Your task to perform on an android device: Go to ESPN.com Image 0: 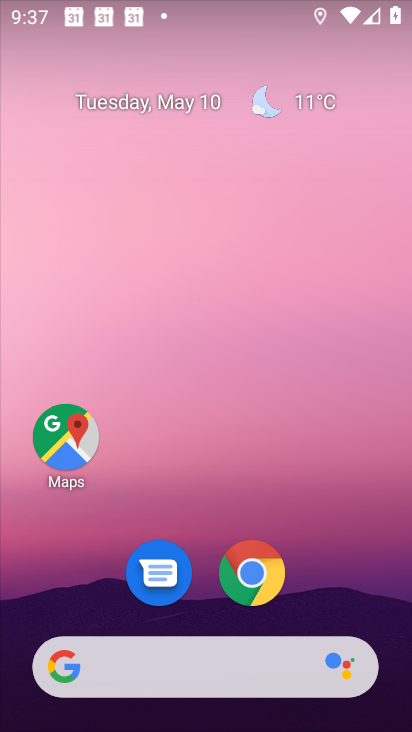
Step 0: click (251, 570)
Your task to perform on an android device: Go to ESPN.com Image 1: 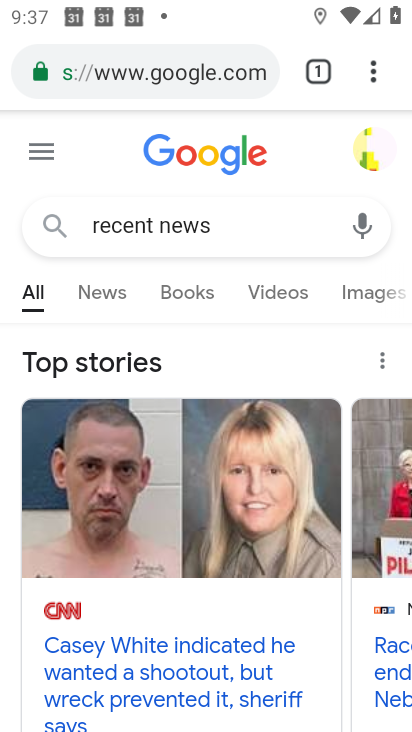
Step 1: click (196, 87)
Your task to perform on an android device: Go to ESPN.com Image 2: 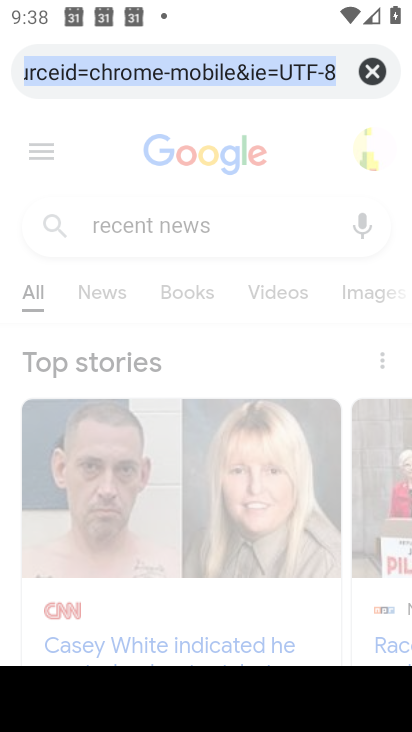
Step 2: type "ESPN.com"
Your task to perform on an android device: Go to ESPN.com Image 3: 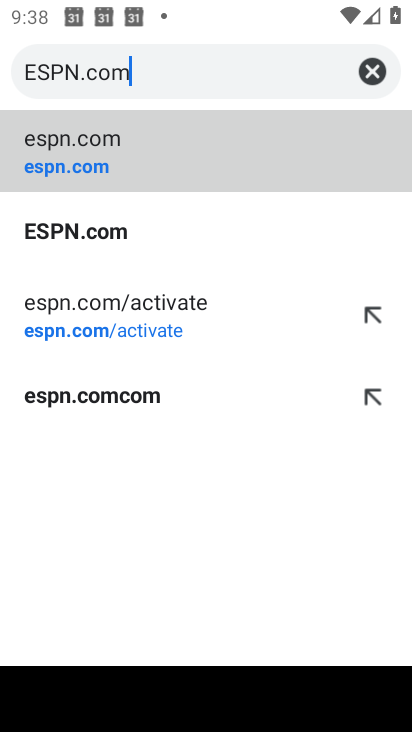
Step 3: click (88, 167)
Your task to perform on an android device: Go to ESPN.com Image 4: 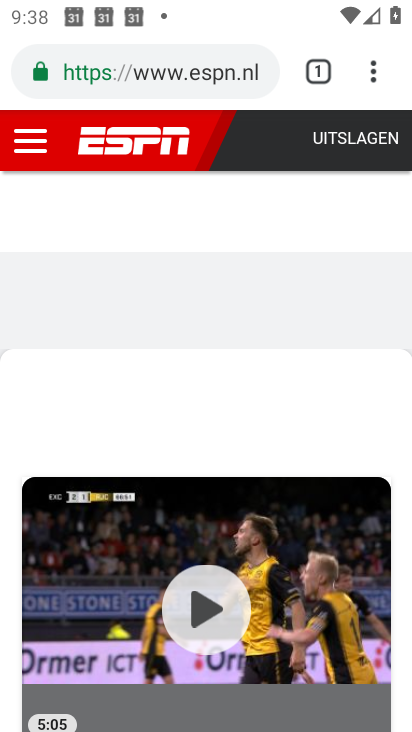
Step 4: task complete